Your task to perform on an android device: stop showing notifications on the lock screen Image 0: 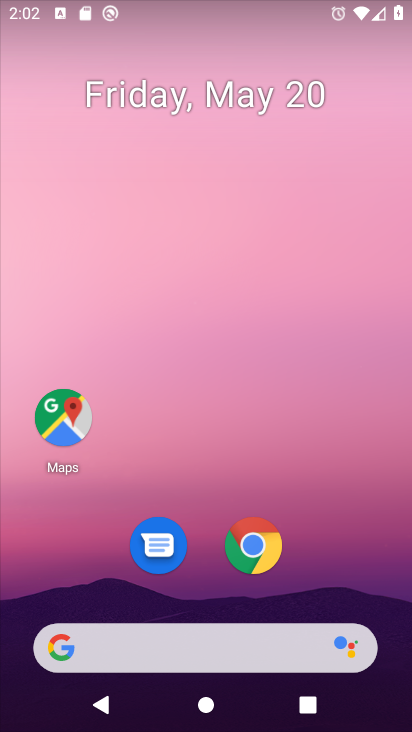
Step 0: drag from (244, 575) to (311, 110)
Your task to perform on an android device: stop showing notifications on the lock screen Image 1: 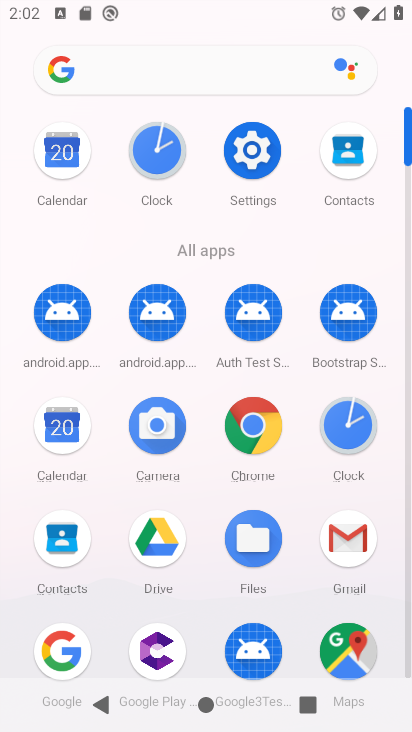
Step 1: click (266, 144)
Your task to perform on an android device: stop showing notifications on the lock screen Image 2: 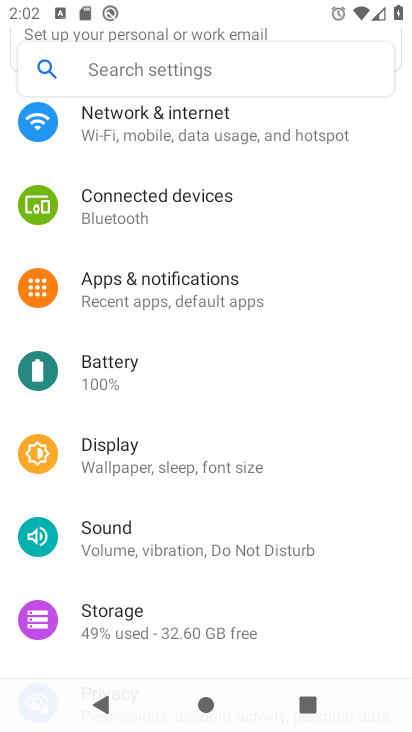
Step 2: click (199, 292)
Your task to perform on an android device: stop showing notifications on the lock screen Image 3: 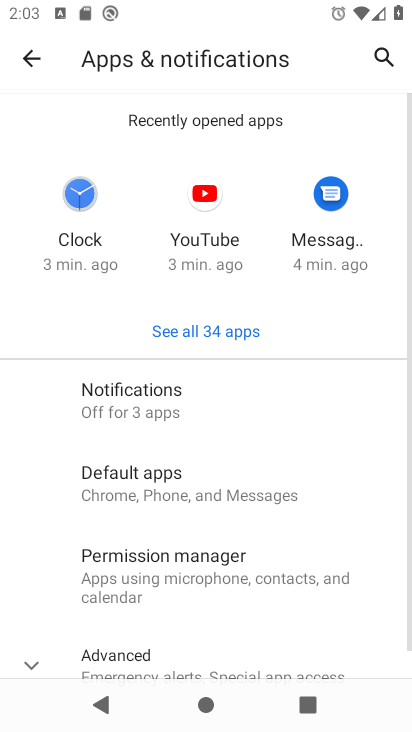
Step 3: click (168, 412)
Your task to perform on an android device: stop showing notifications on the lock screen Image 4: 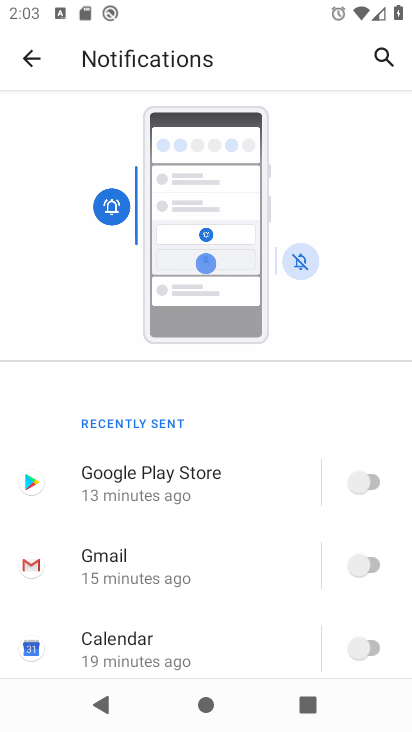
Step 4: drag from (206, 649) to (213, 154)
Your task to perform on an android device: stop showing notifications on the lock screen Image 5: 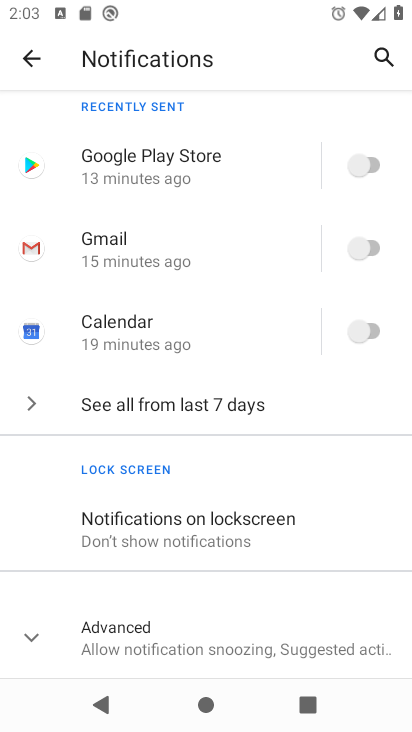
Step 5: click (188, 518)
Your task to perform on an android device: stop showing notifications on the lock screen Image 6: 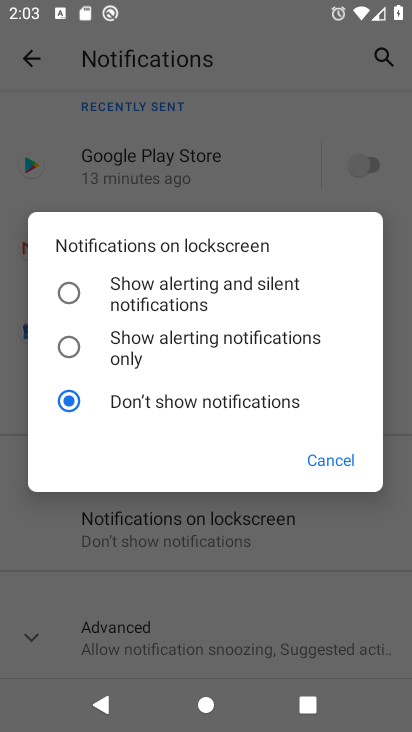
Step 6: task complete